Your task to perform on an android device: Go to network settings Image 0: 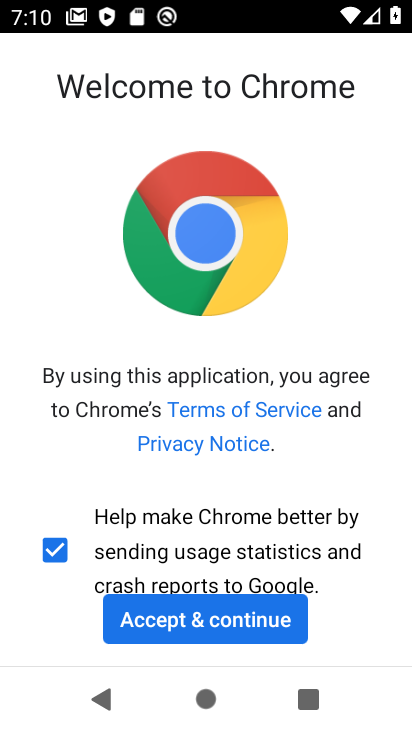
Step 0: press home button
Your task to perform on an android device: Go to network settings Image 1: 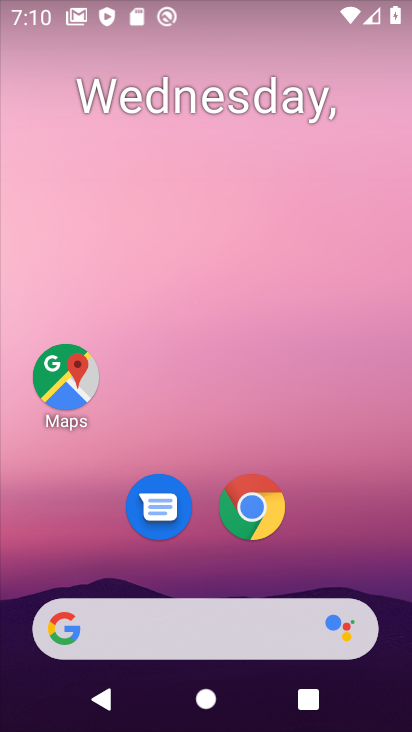
Step 1: drag from (275, 622) to (370, 189)
Your task to perform on an android device: Go to network settings Image 2: 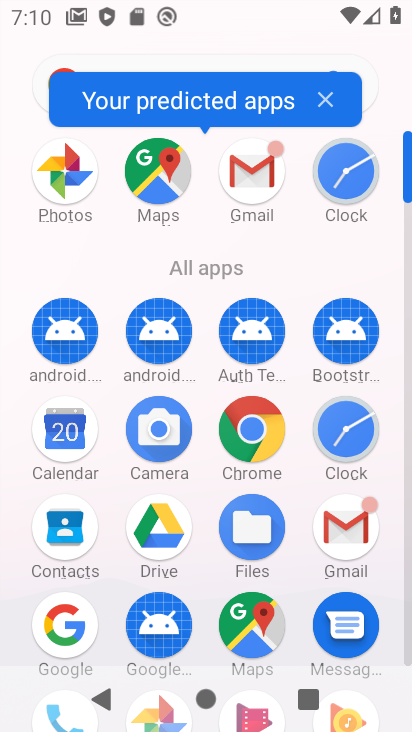
Step 2: drag from (199, 579) to (329, 256)
Your task to perform on an android device: Go to network settings Image 3: 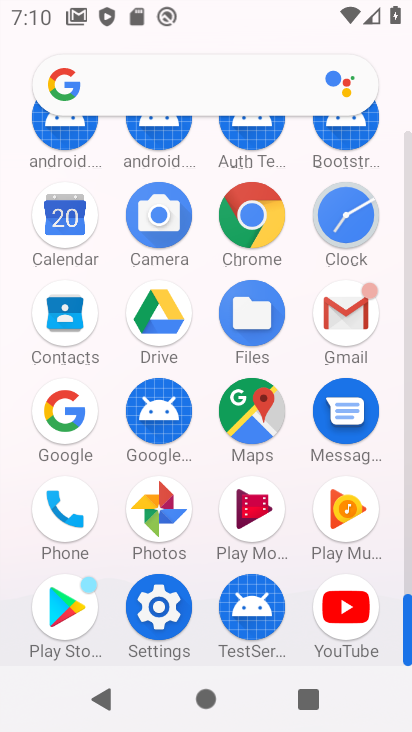
Step 3: click (155, 617)
Your task to perform on an android device: Go to network settings Image 4: 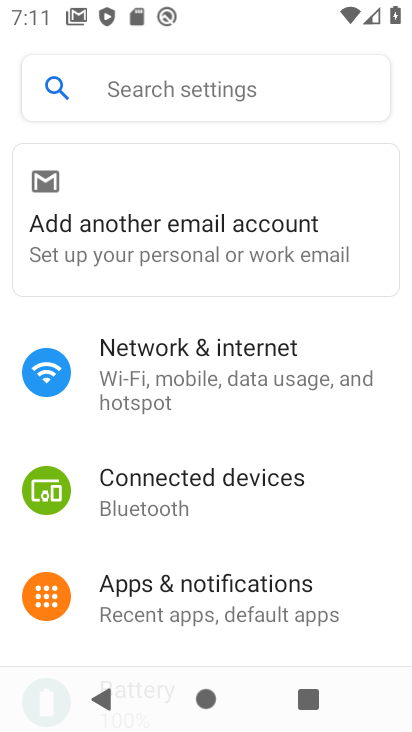
Step 4: click (176, 383)
Your task to perform on an android device: Go to network settings Image 5: 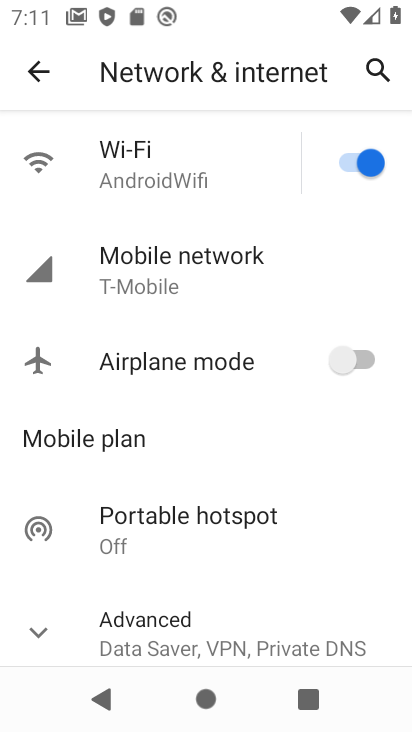
Step 5: click (189, 275)
Your task to perform on an android device: Go to network settings Image 6: 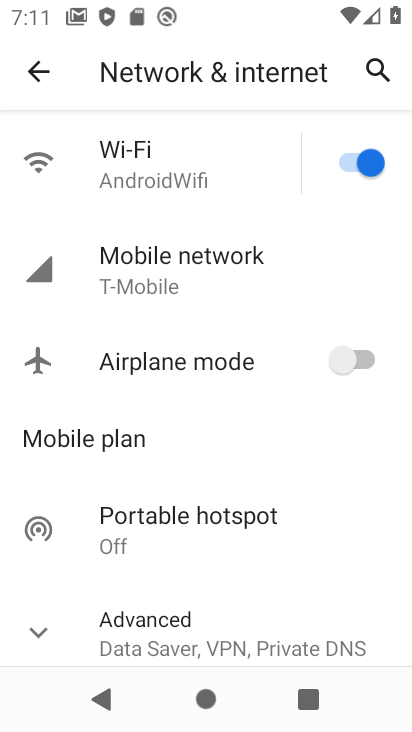
Step 6: task complete